Your task to perform on an android device: Go to CNN.com Image 0: 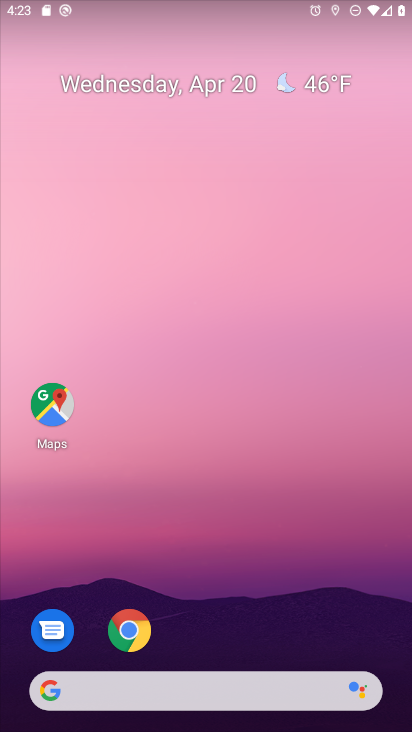
Step 0: drag from (286, 594) to (306, 15)
Your task to perform on an android device: Go to CNN.com Image 1: 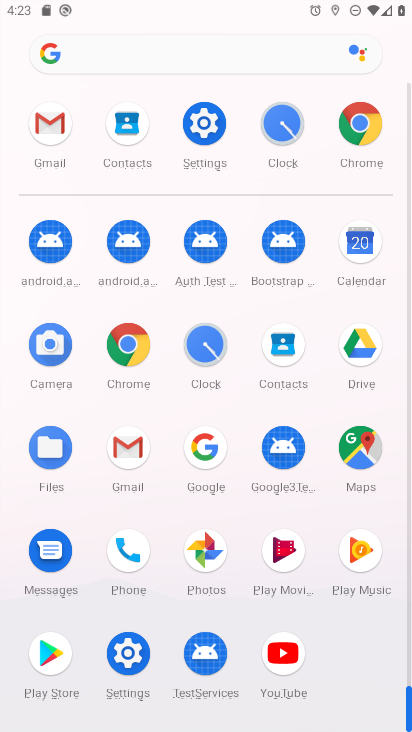
Step 1: click (119, 358)
Your task to perform on an android device: Go to CNN.com Image 2: 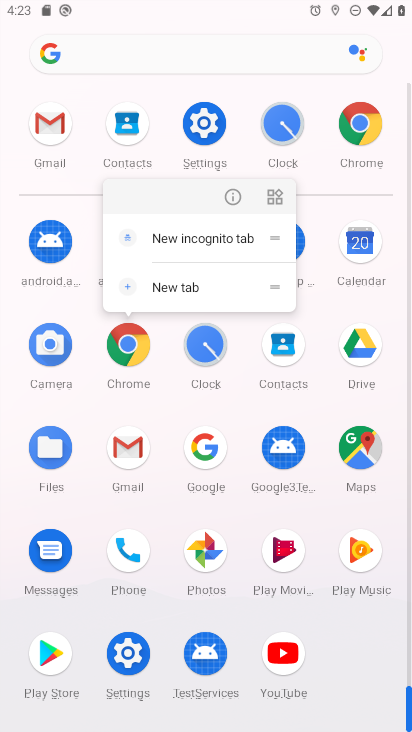
Step 2: click (127, 356)
Your task to perform on an android device: Go to CNN.com Image 3: 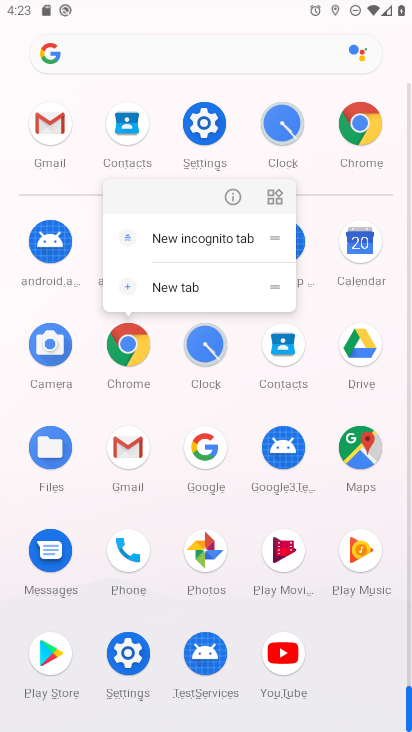
Step 3: click (127, 356)
Your task to perform on an android device: Go to CNN.com Image 4: 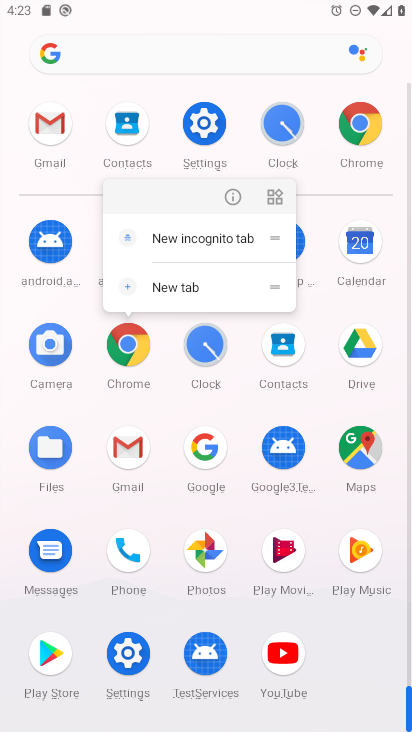
Step 4: click (127, 356)
Your task to perform on an android device: Go to CNN.com Image 5: 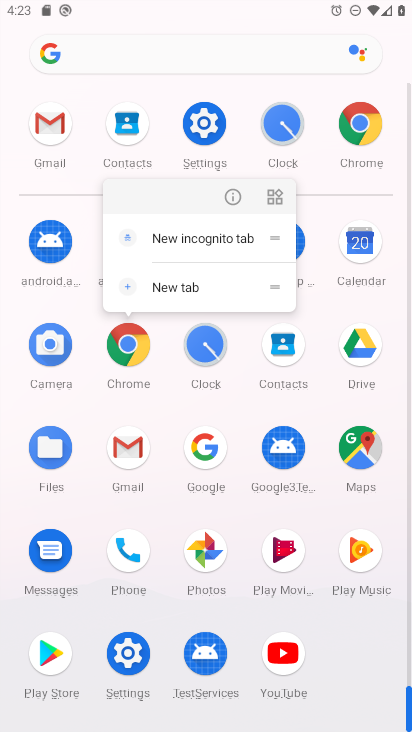
Step 5: click (127, 356)
Your task to perform on an android device: Go to CNN.com Image 6: 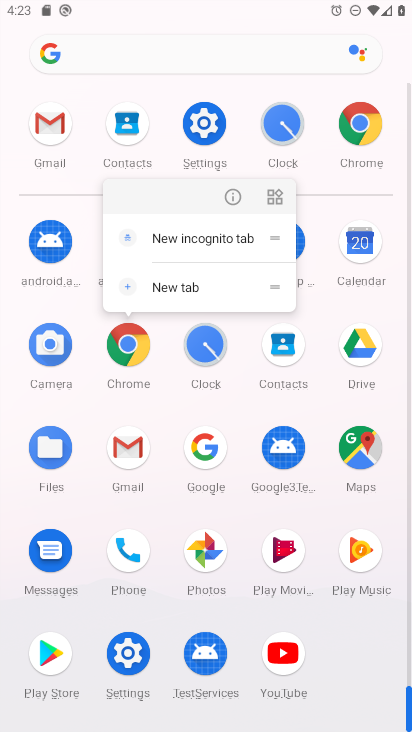
Step 6: click (127, 356)
Your task to perform on an android device: Go to CNN.com Image 7: 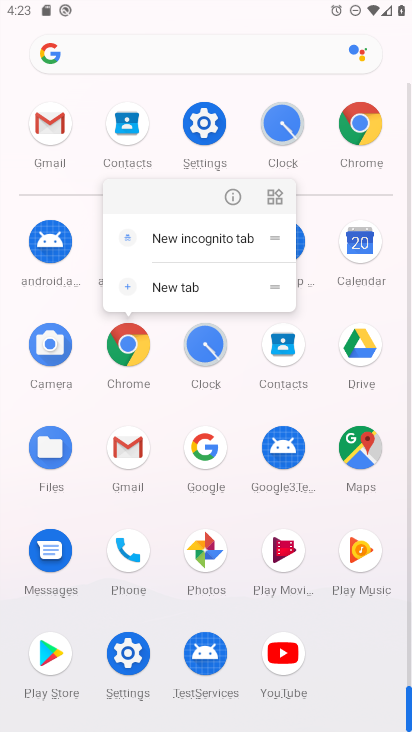
Step 7: click (127, 356)
Your task to perform on an android device: Go to CNN.com Image 8: 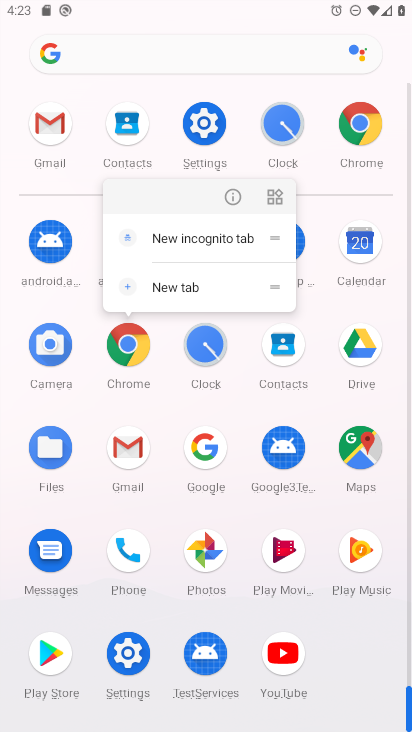
Step 8: click (127, 356)
Your task to perform on an android device: Go to CNN.com Image 9: 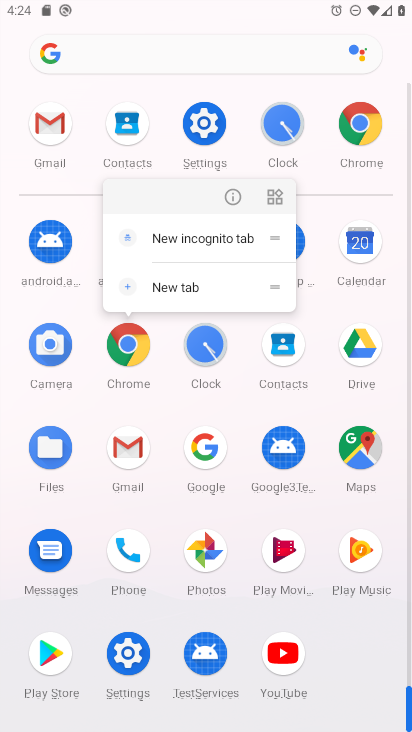
Step 9: click (127, 356)
Your task to perform on an android device: Go to CNN.com Image 10: 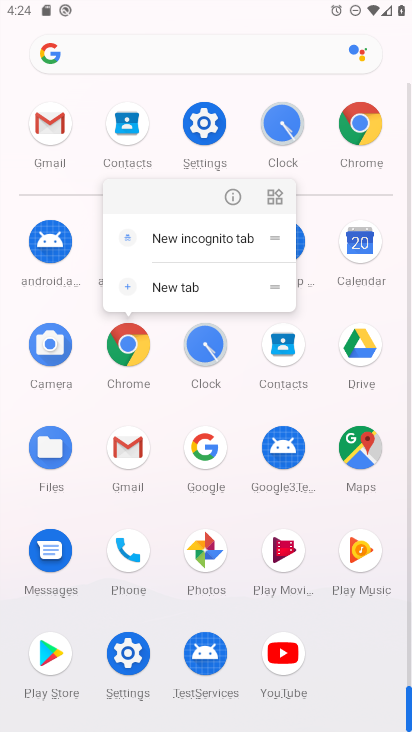
Step 10: click (127, 356)
Your task to perform on an android device: Go to CNN.com Image 11: 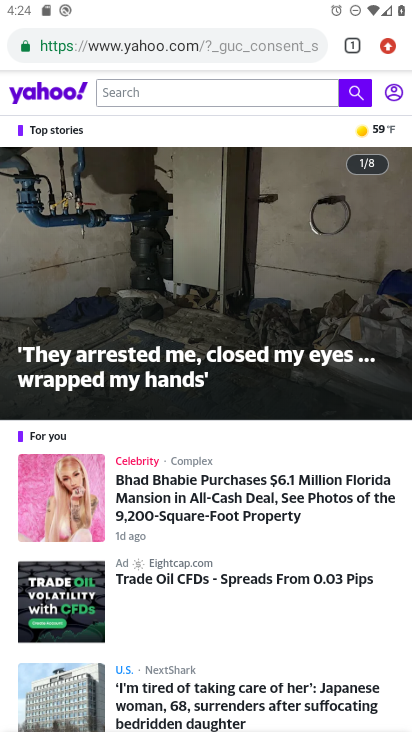
Step 11: click (215, 50)
Your task to perform on an android device: Go to CNN.com Image 12: 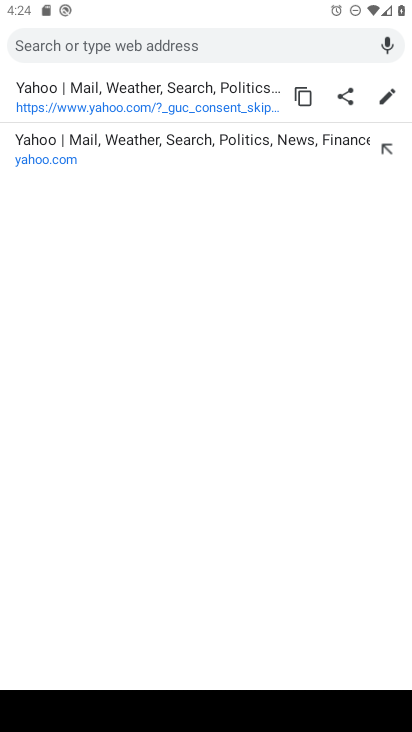
Step 12: type "cnn.com"
Your task to perform on an android device: Go to CNN.com Image 13: 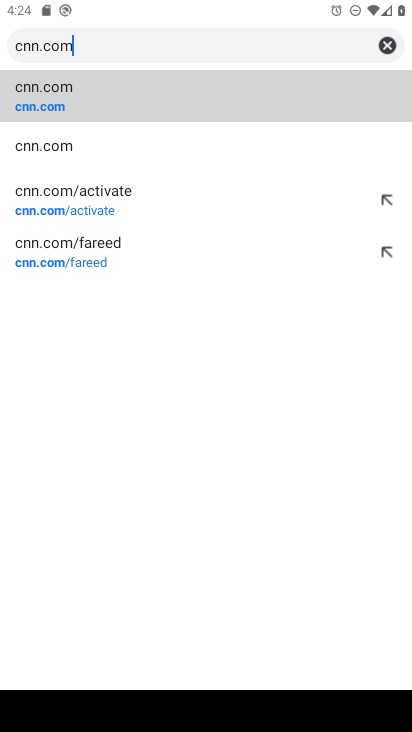
Step 13: click (58, 108)
Your task to perform on an android device: Go to CNN.com Image 14: 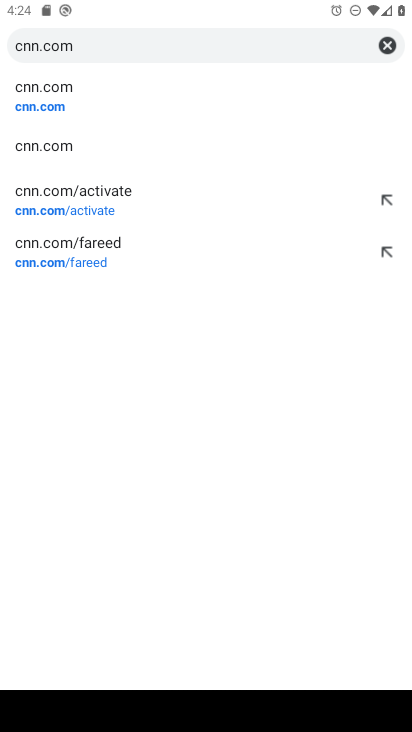
Step 14: click (85, 84)
Your task to perform on an android device: Go to CNN.com Image 15: 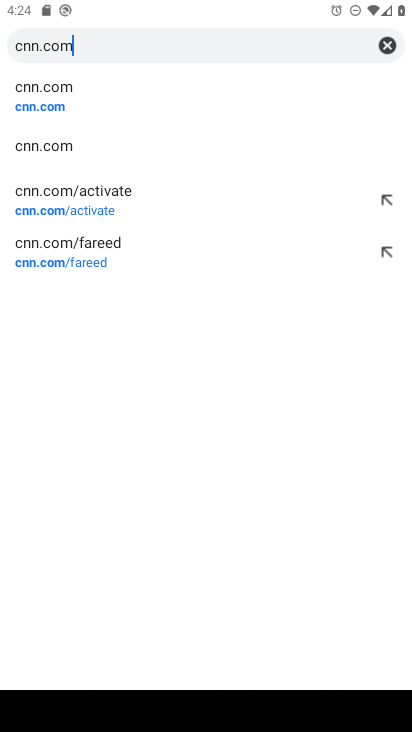
Step 15: click (161, 109)
Your task to perform on an android device: Go to CNN.com Image 16: 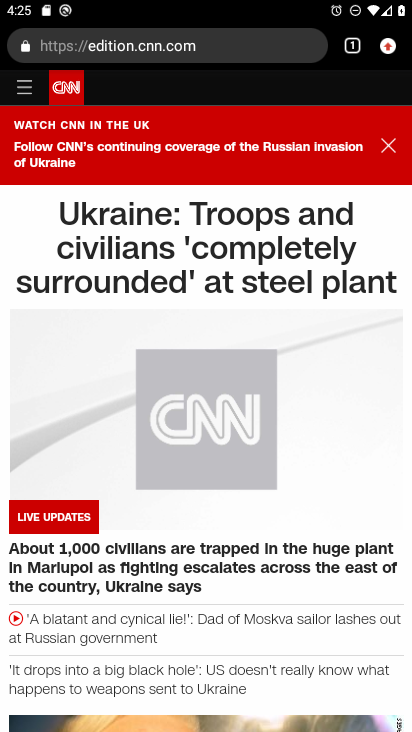
Step 16: task complete